Your task to perform on an android device: uninstall "Spotify: Music and Podcasts" Image 0: 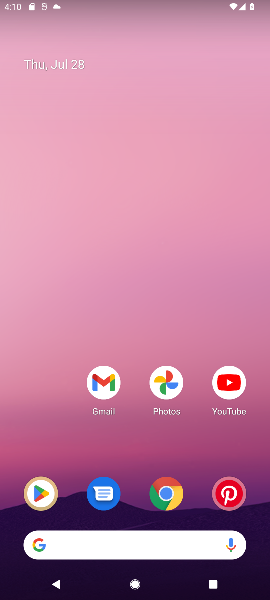
Step 0: drag from (131, 457) to (201, 163)
Your task to perform on an android device: uninstall "Spotify: Music and Podcasts" Image 1: 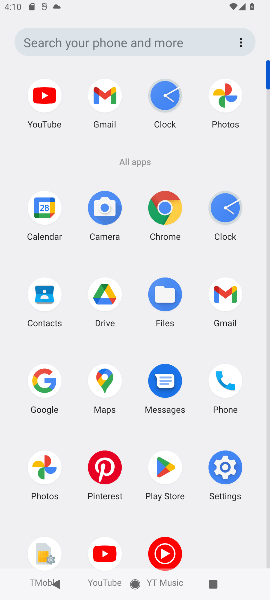
Step 1: click (165, 463)
Your task to perform on an android device: uninstall "Spotify: Music and Podcasts" Image 2: 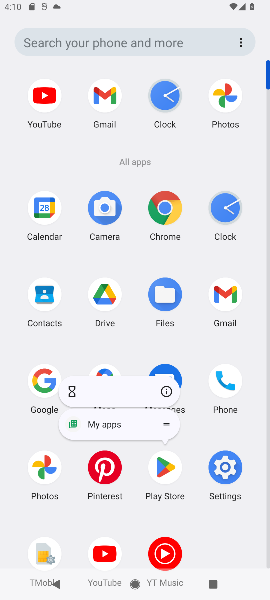
Step 2: click (170, 395)
Your task to perform on an android device: uninstall "Spotify: Music and Podcasts" Image 3: 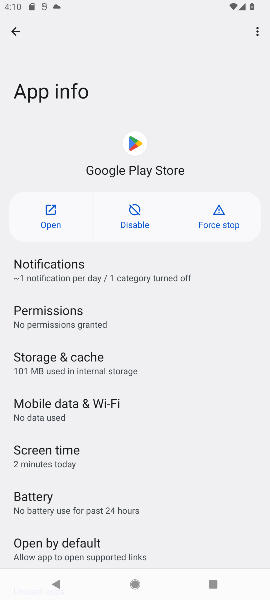
Step 3: click (45, 203)
Your task to perform on an android device: uninstall "Spotify: Music and Podcasts" Image 4: 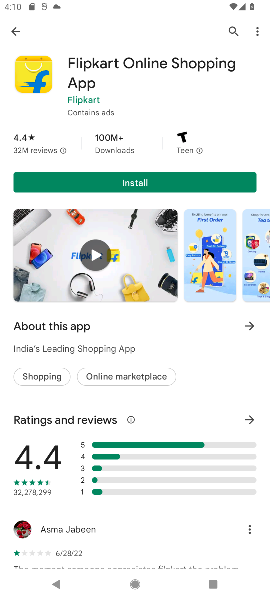
Step 4: click (237, 33)
Your task to perform on an android device: uninstall "Spotify: Music and Podcasts" Image 5: 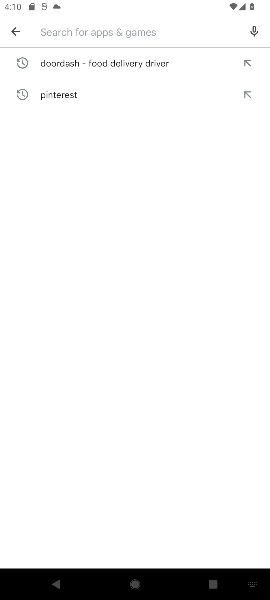
Step 5: type "Spotify: Music and Podcasts"
Your task to perform on an android device: uninstall "Spotify: Music and Podcasts" Image 6: 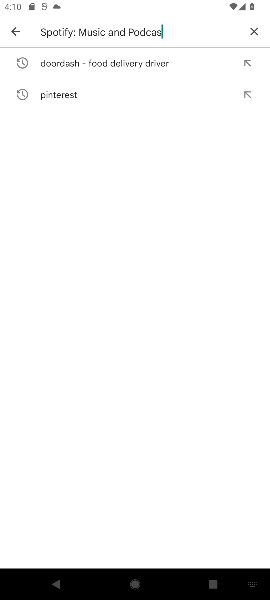
Step 6: type ""
Your task to perform on an android device: uninstall "Spotify: Music and Podcasts" Image 7: 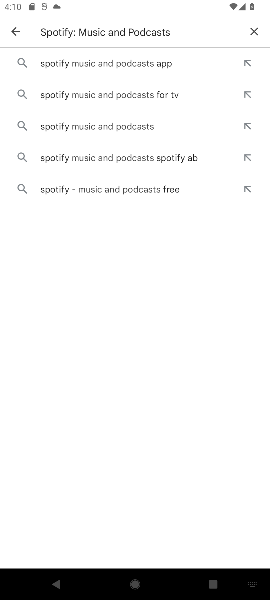
Step 7: click (123, 68)
Your task to perform on an android device: uninstall "Spotify: Music and Podcasts" Image 8: 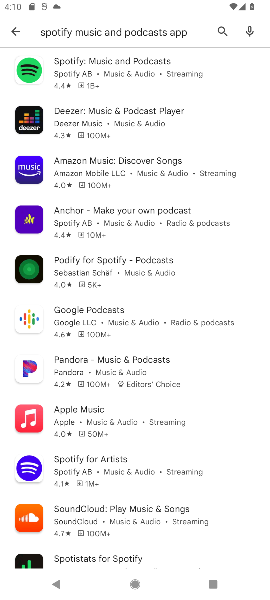
Step 8: click (90, 63)
Your task to perform on an android device: uninstall "Spotify: Music and Podcasts" Image 9: 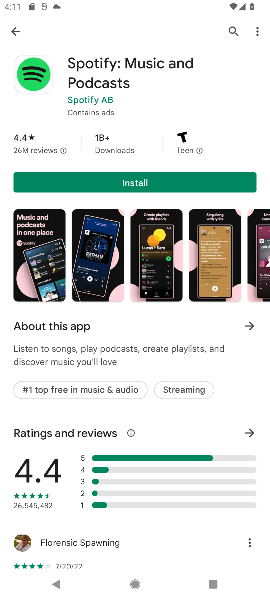
Step 9: task complete